Your task to perform on an android device: turn on sleep mode Image 0: 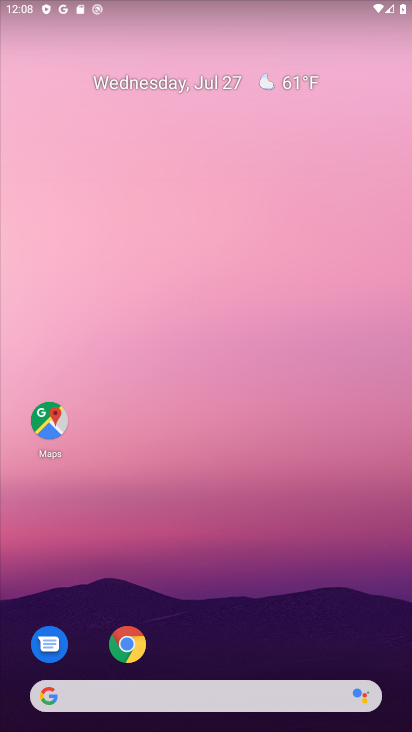
Step 0: drag from (273, 545) to (288, 87)
Your task to perform on an android device: turn on sleep mode Image 1: 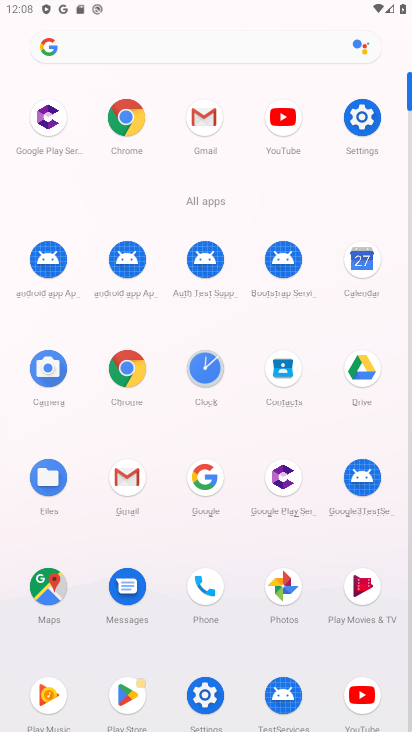
Step 1: click (198, 693)
Your task to perform on an android device: turn on sleep mode Image 2: 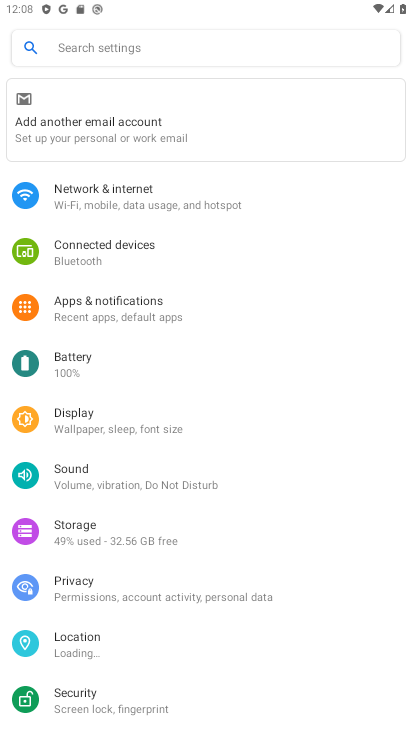
Step 2: drag from (166, 560) to (101, 677)
Your task to perform on an android device: turn on sleep mode Image 3: 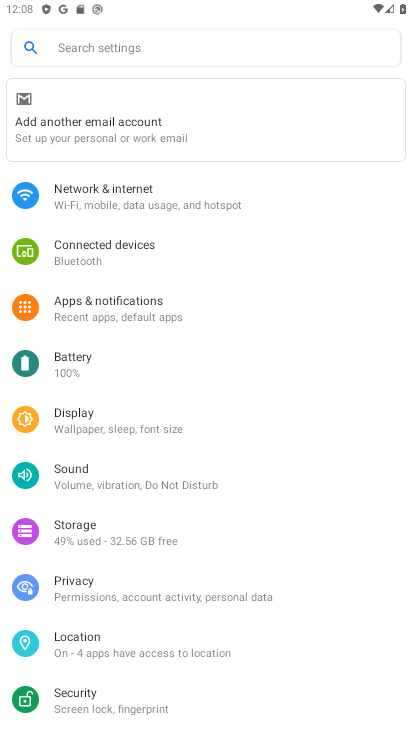
Step 3: click (81, 420)
Your task to perform on an android device: turn on sleep mode Image 4: 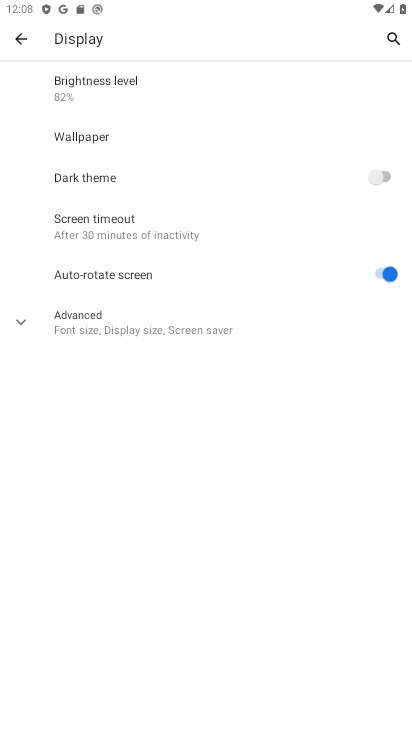
Step 4: drag from (173, 517) to (216, 251)
Your task to perform on an android device: turn on sleep mode Image 5: 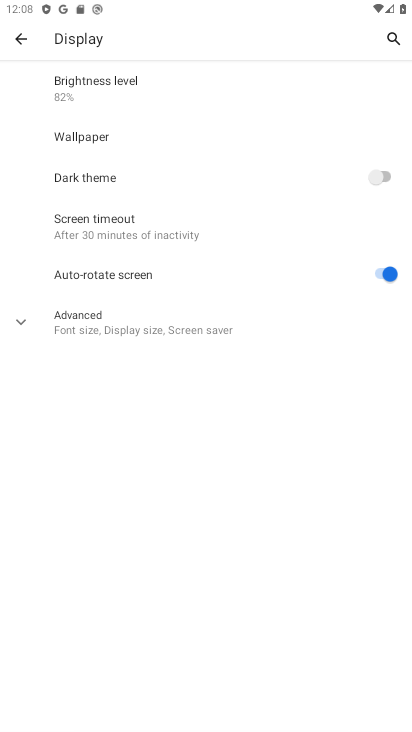
Step 5: click (165, 223)
Your task to perform on an android device: turn on sleep mode Image 6: 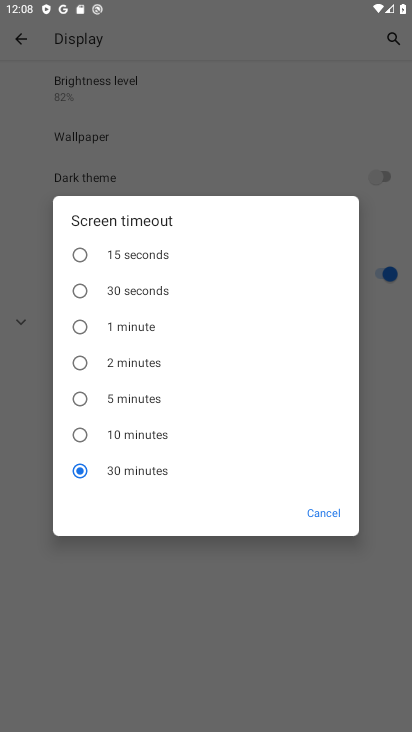
Step 6: task complete